Your task to perform on an android device: turn off notifications in google photos Image 0: 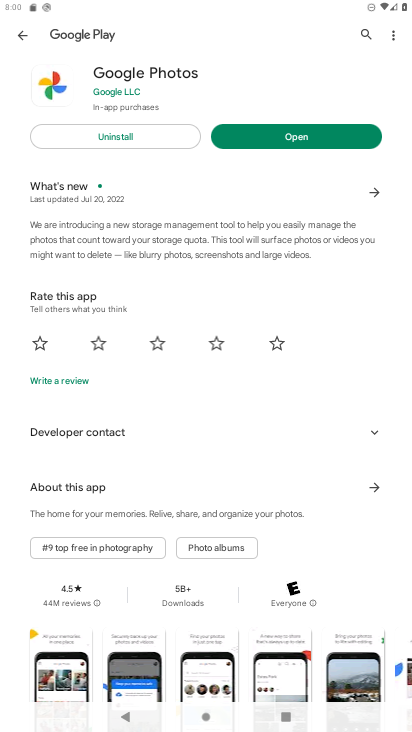
Step 0: press home button
Your task to perform on an android device: turn off notifications in google photos Image 1: 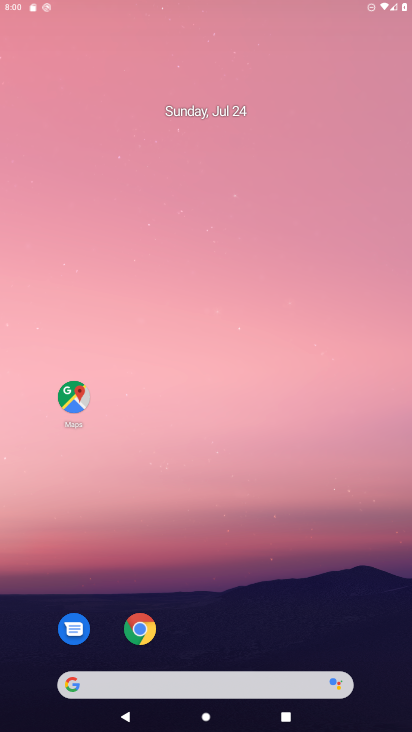
Step 1: drag from (369, 624) to (223, 21)
Your task to perform on an android device: turn off notifications in google photos Image 2: 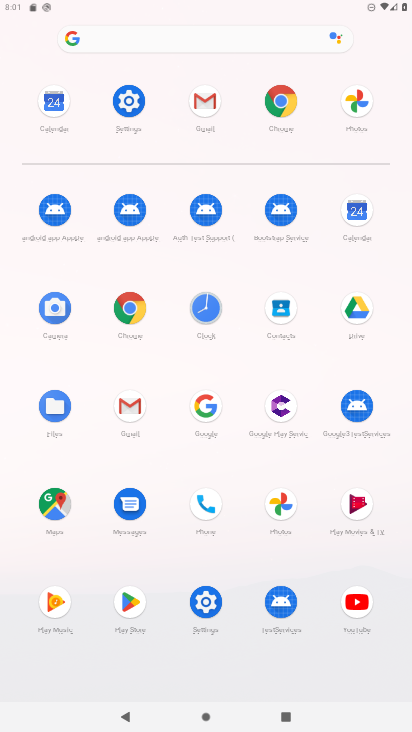
Step 2: click (279, 494)
Your task to perform on an android device: turn off notifications in google photos Image 3: 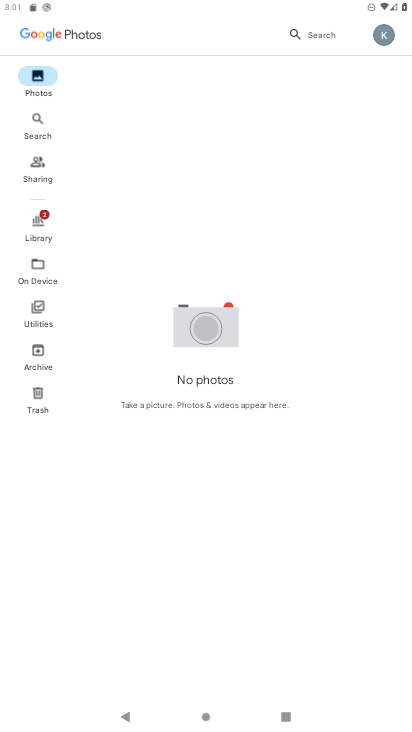
Step 3: click (386, 30)
Your task to perform on an android device: turn off notifications in google photos Image 4: 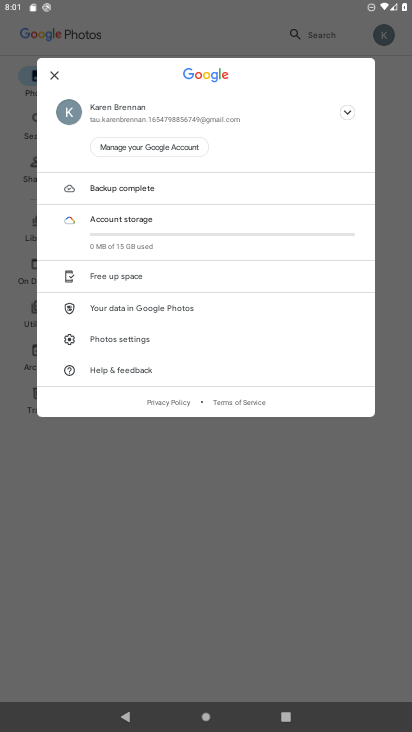
Step 4: click (161, 348)
Your task to perform on an android device: turn off notifications in google photos Image 5: 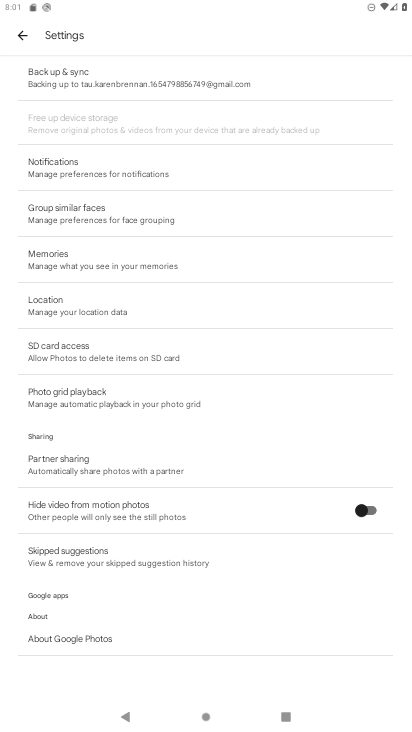
Step 5: click (74, 167)
Your task to perform on an android device: turn off notifications in google photos Image 6: 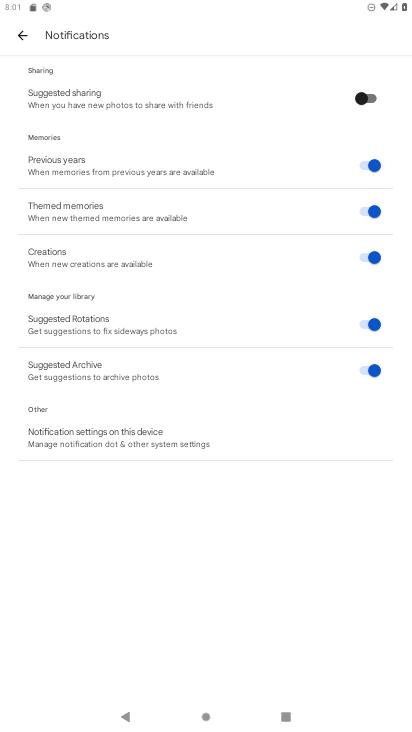
Step 6: task complete